Your task to perform on an android device: create a new album in the google photos Image 0: 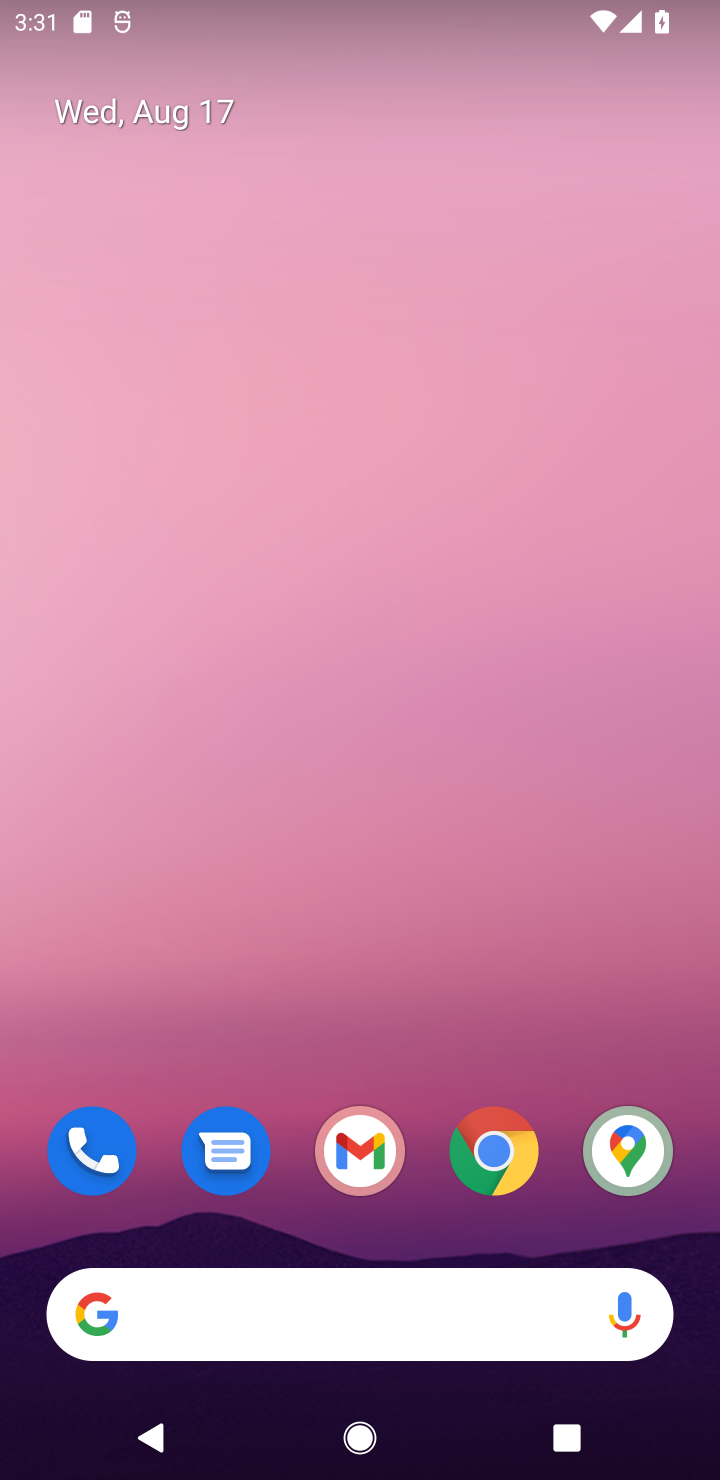
Step 0: drag from (463, 1220) to (461, 17)
Your task to perform on an android device: create a new album in the google photos Image 1: 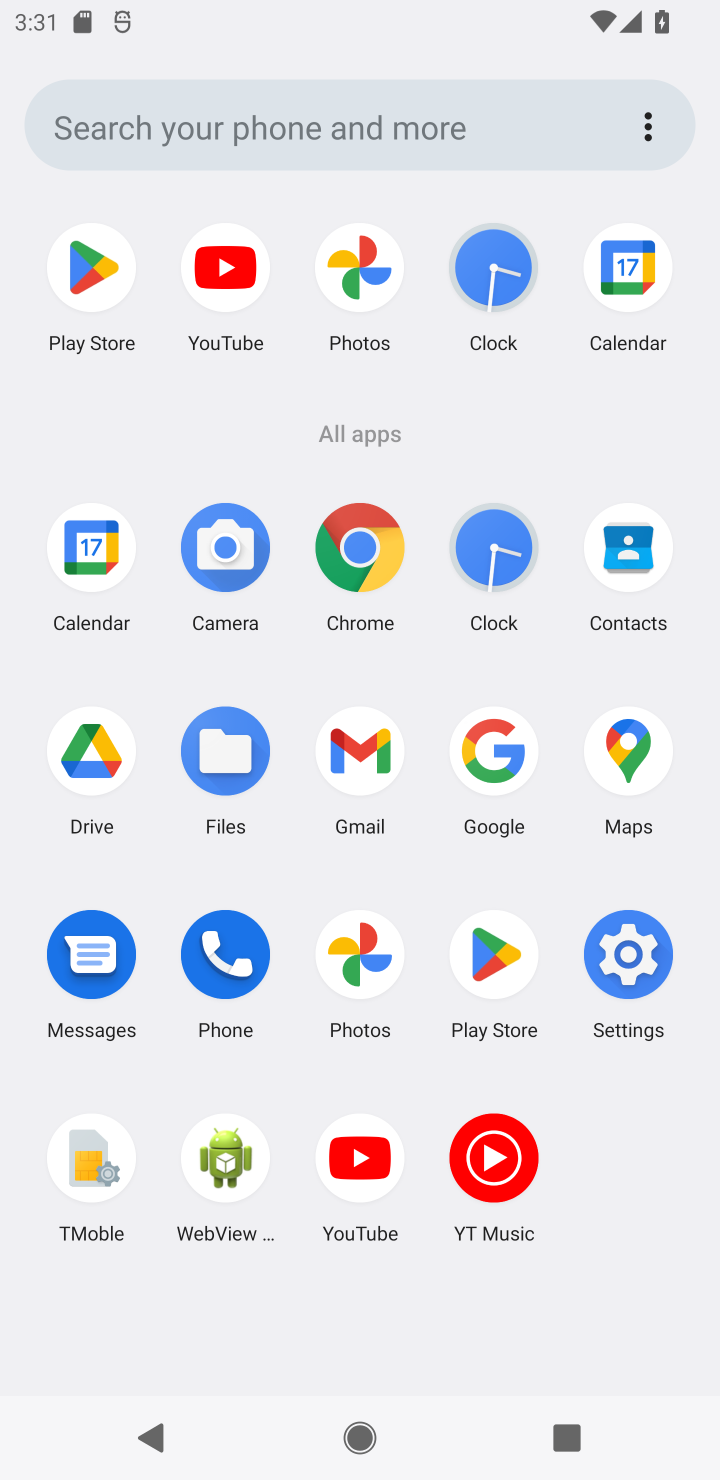
Step 1: click (352, 272)
Your task to perform on an android device: create a new album in the google photos Image 2: 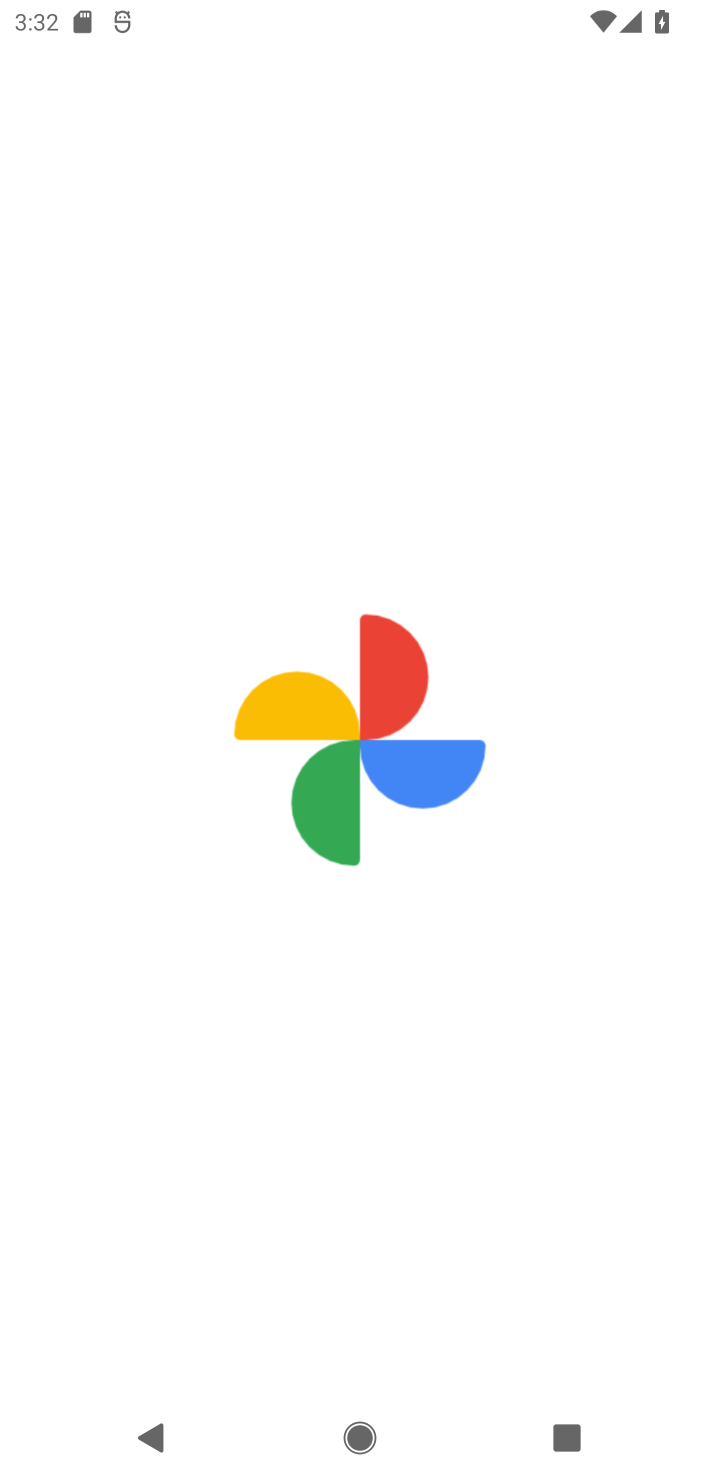
Step 2: task complete